Your task to perform on an android device: turn on data saver in the chrome app Image 0: 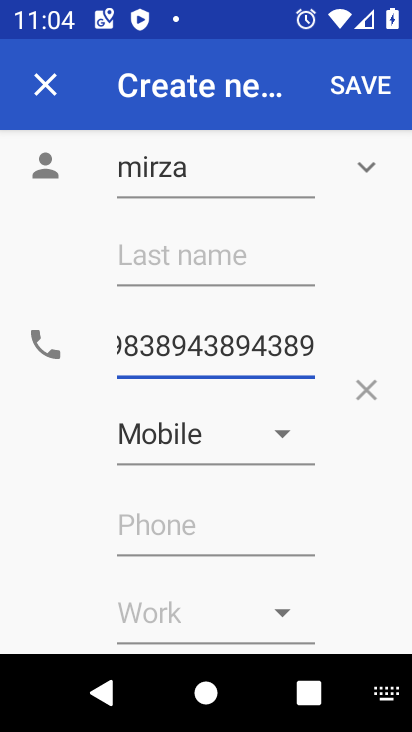
Step 0: press home button
Your task to perform on an android device: turn on data saver in the chrome app Image 1: 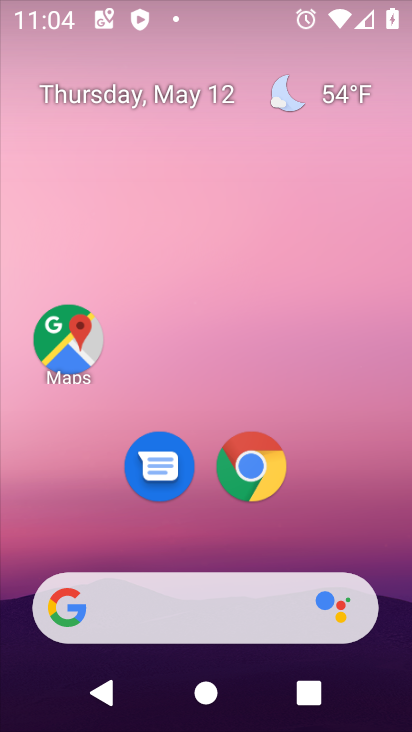
Step 1: drag from (342, 518) to (344, 113)
Your task to perform on an android device: turn on data saver in the chrome app Image 2: 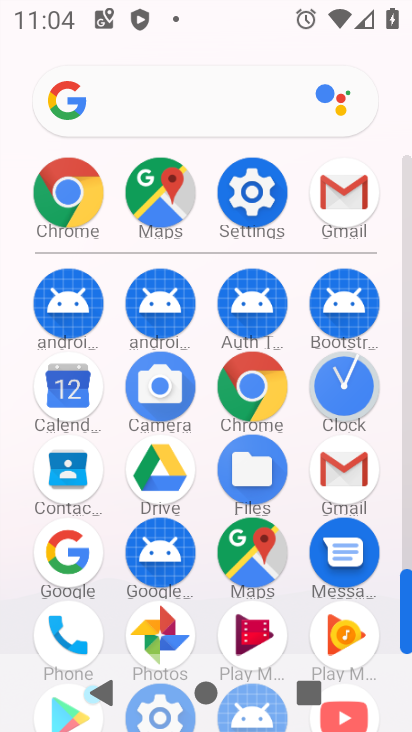
Step 2: click (264, 401)
Your task to perform on an android device: turn on data saver in the chrome app Image 3: 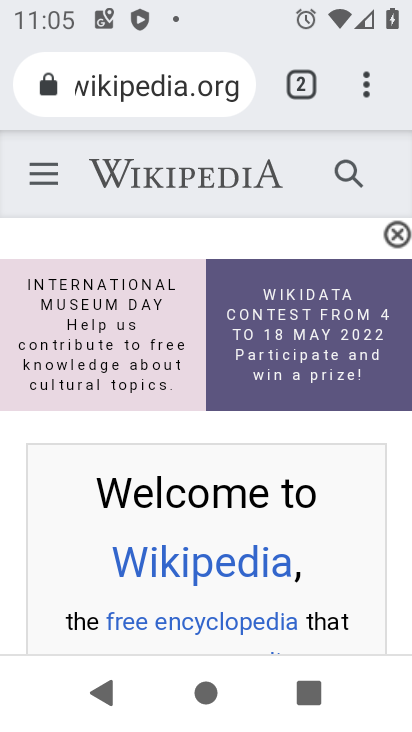
Step 3: drag from (357, 91) to (243, 532)
Your task to perform on an android device: turn on data saver in the chrome app Image 4: 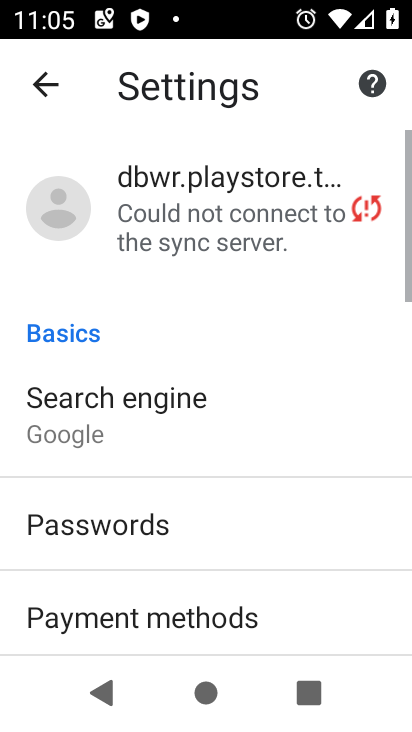
Step 4: drag from (290, 610) to (284, 324)
Your task to perform on an android device: turn on data saver in the chrome app Image 5: 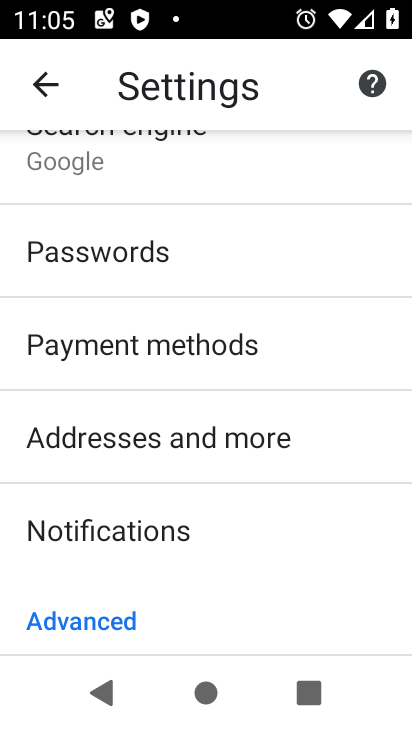
Step 5: drag from (305, 534) to (308, 275)
Your task to perform on an android device: turn on data saver in the chrome app Image 6: 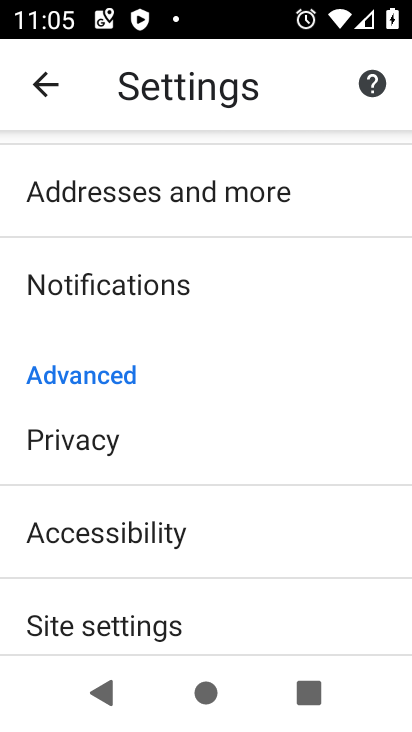
Step 6: drag from (309, 559) to (302, 293)
Your task to perform on an android device: turn on data saver in the chrome app Image 7: 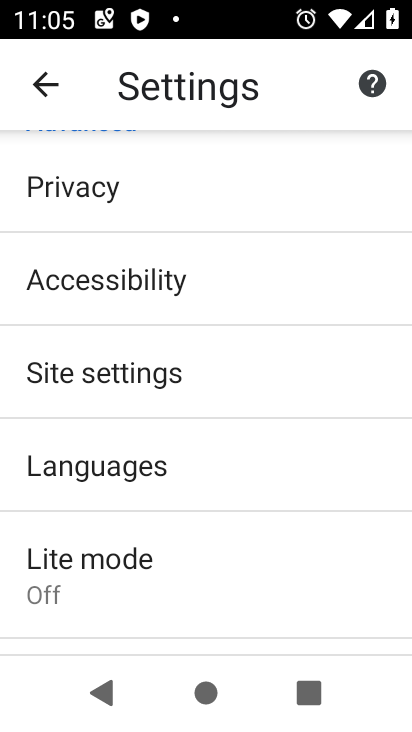
Step 7: click (222, 576)
Your task to perform on an android device: turn on data saver in the chrome app Image 8: 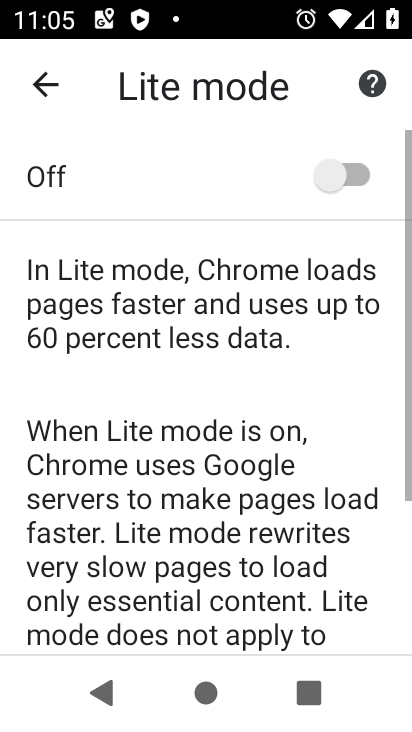
Step 8: click (360, 171)
Your task to perform on an android device: turn on data saver in the chrome app Image 9: 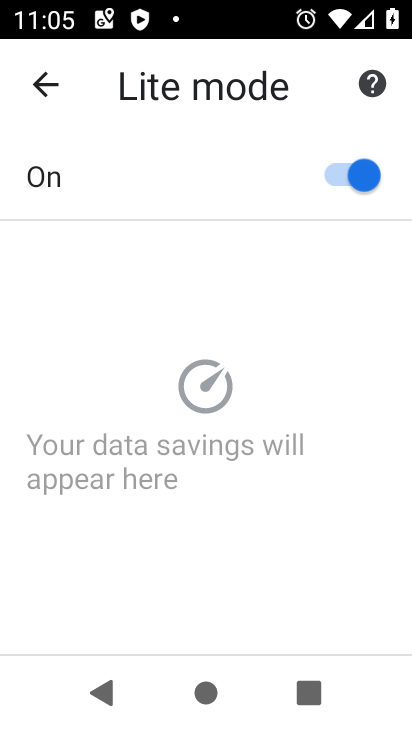
Step 9: task complete